Your task to perform on an android device: Add lenovo thinkpad to the cart on target.com, then select checkout. Image 0: 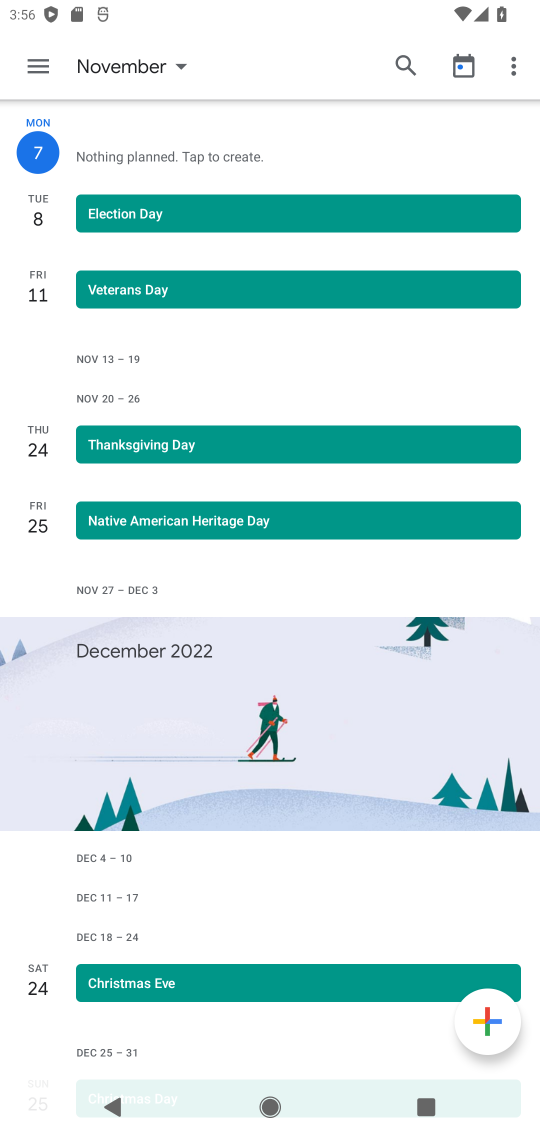
Step 0: press home button
Your task to perform on an android device: Add lenovo thinkpad to the cart on target.com, then select checkout. Image 1: 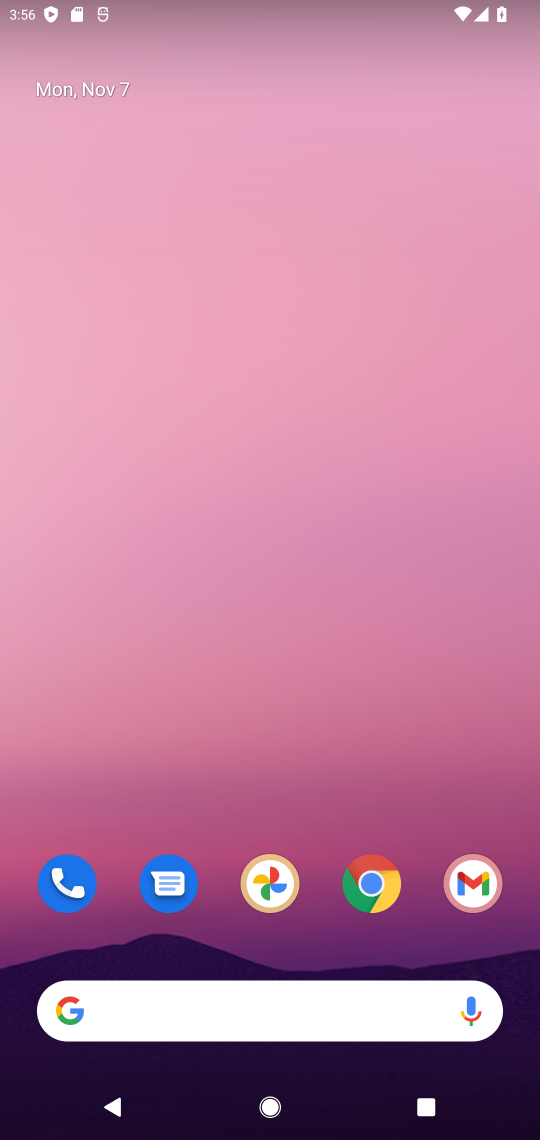
Step 1: click (373, 885)
Your task to perform on an android device: Add lenovo thinkpad to the cart on target.com, then select checkout. Image 2: 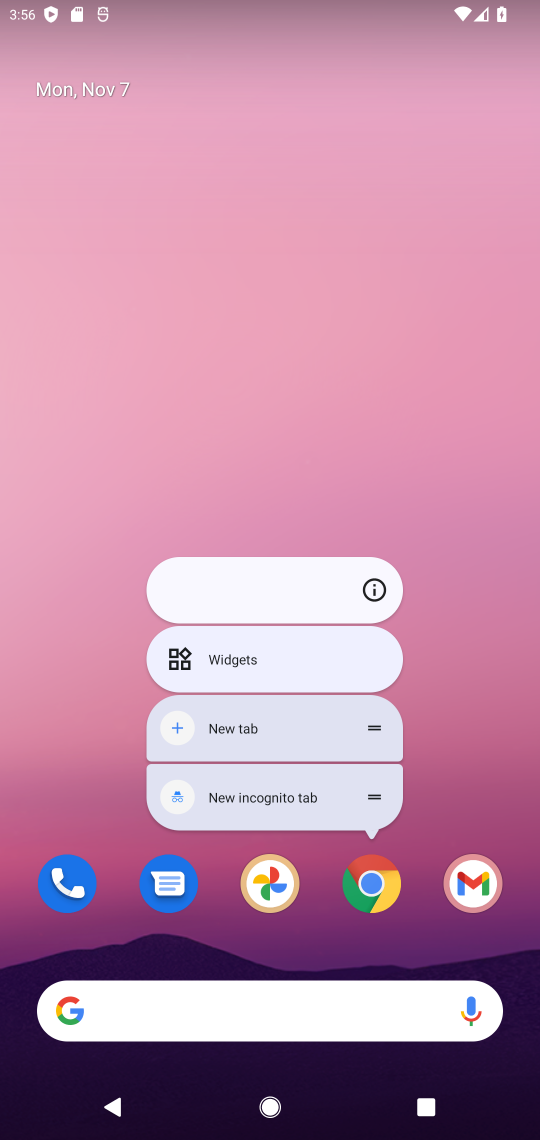
Step 2: click (373, 888)
Your task to perform on an android device: Add lenovo thinkpad to the cart on target.com, then select checkout. Image 3: 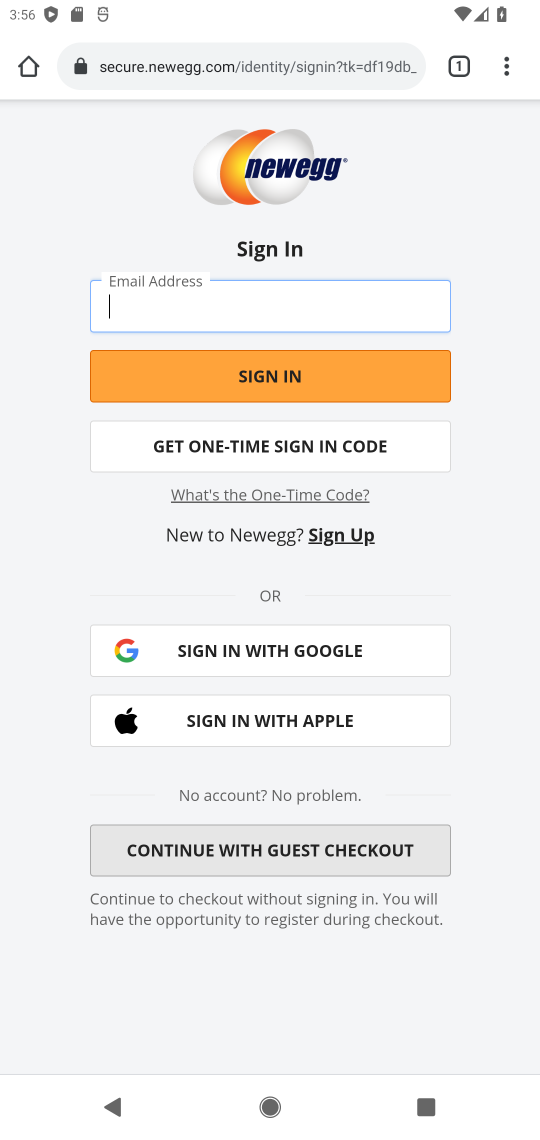
Step 3: click (324, 63)
Your task to perform on an android device: Add lenovo thinkpad to the cart on target.com, then select checkout. Image 4: 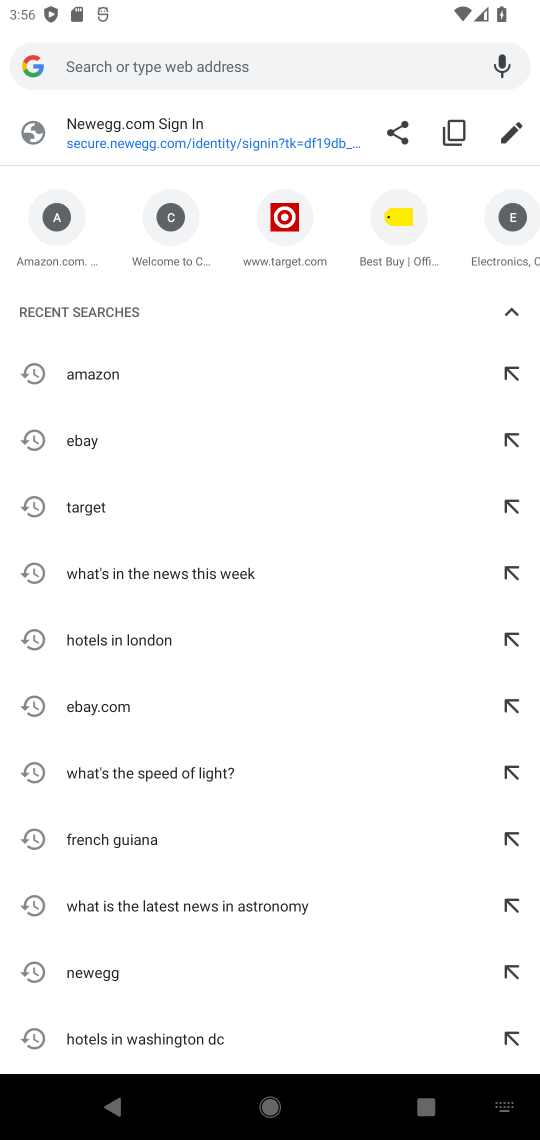
Step 4: click (281, 260)
Your task to perform on an android device: Add lenovo thinkpad to the cart on target.com, then select checkout. Image 5: 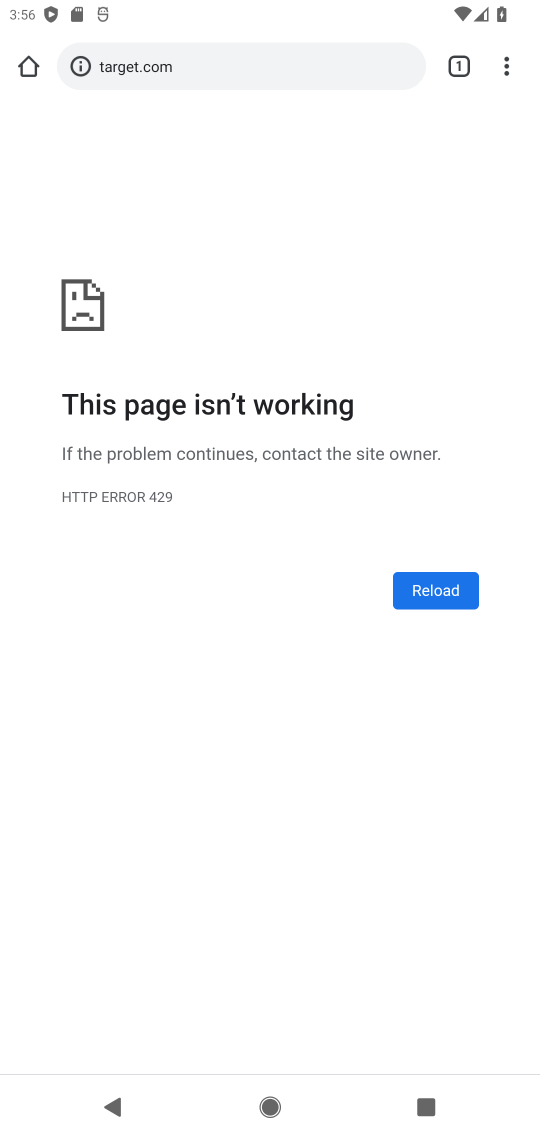
Step 5: click (447, 594)
Your task to perform on an android device: Add lenovo thinkpad to the cart on target.com, then select checkout. Image 6: 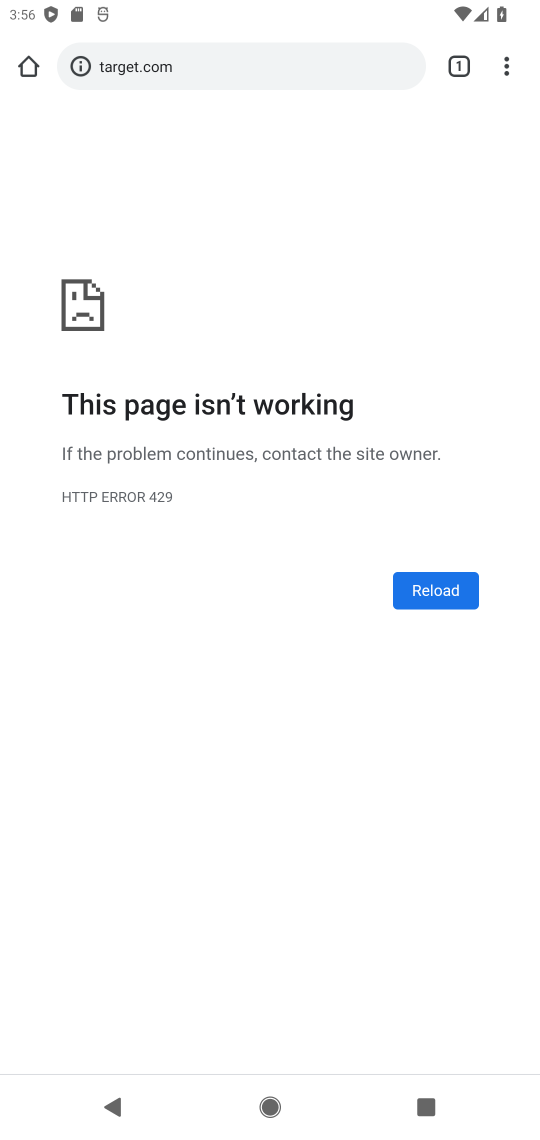
Step 6: click (449, 594)
Your task to perform on an android device: Add lenovo thinkpad to the cart on target.com, then select checkout. Image 7: 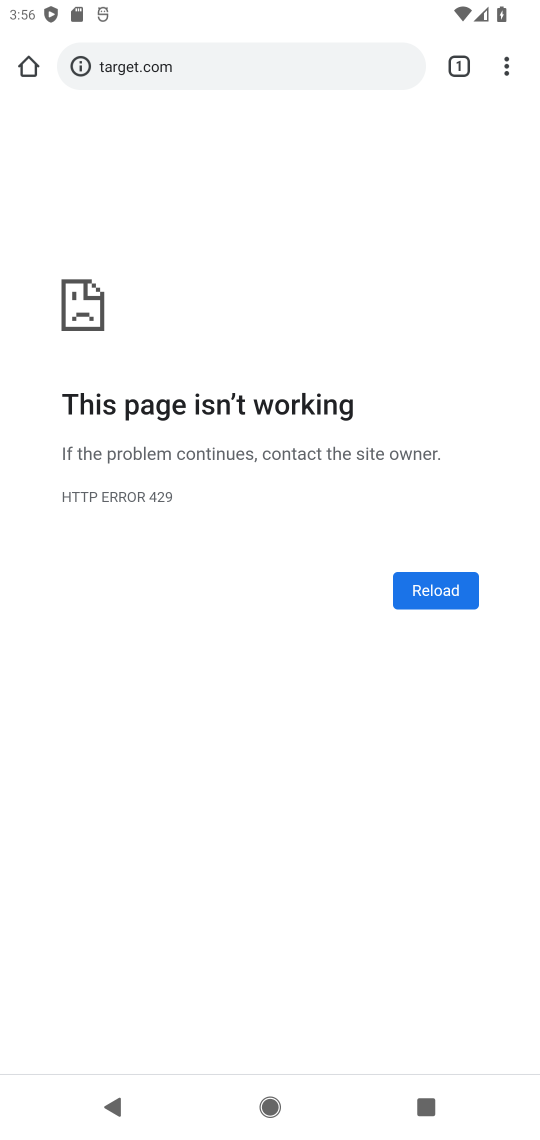
Step 7: click (433, 591)
Your task to perform on an android device: Add lenovo thinkpad to the cart on target.com, then select checkout. Image 8: 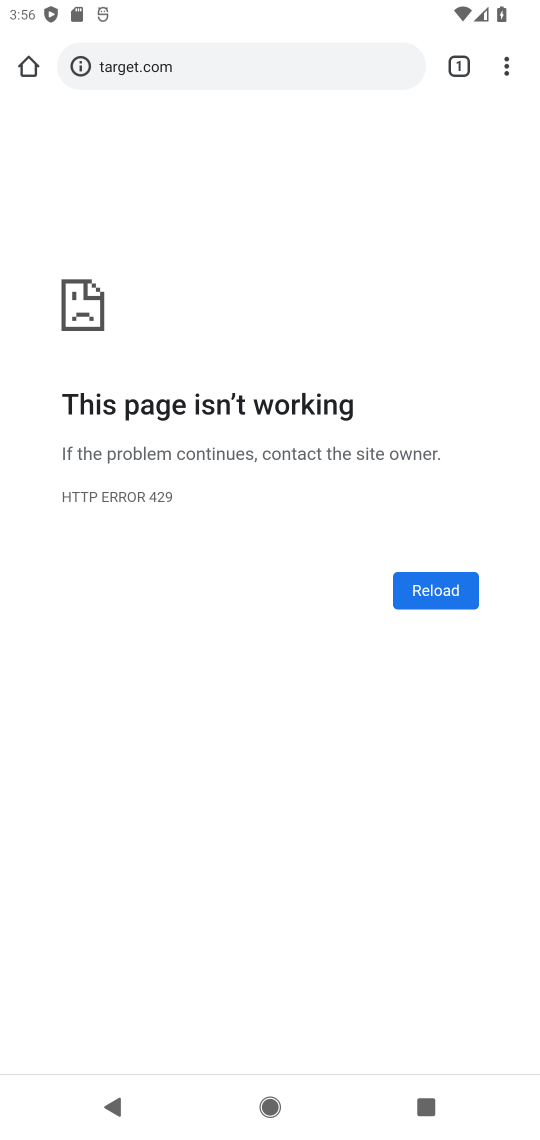
Step 8: click (425, 590)
Your task to perform on an android device: Add lenovo thinkpad to the cart on target.com, then select checkout. Image 9: 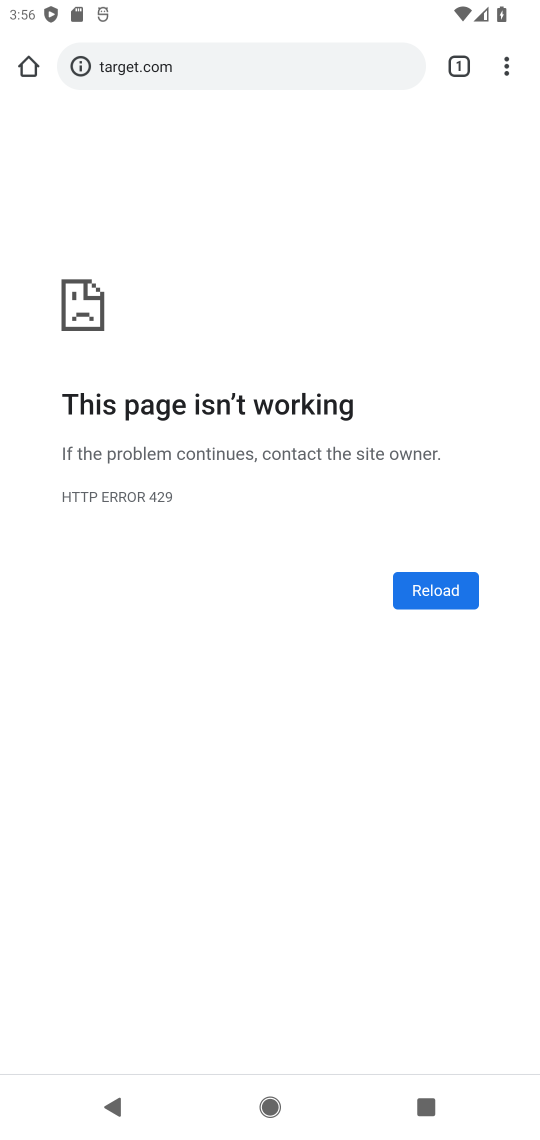
Step 9: task complete